Your task to perform on an android device: turn on data saver in the chrome app Image 0: 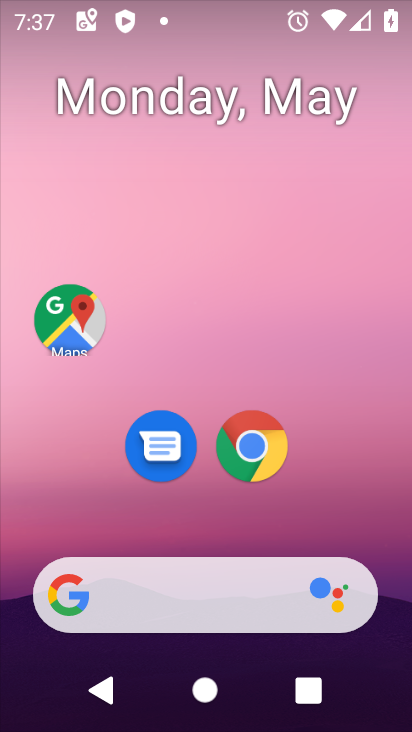
Step 0: click (259, 459)
Your task to perform on an android device: turn on data saver in the chrome app Image 1: 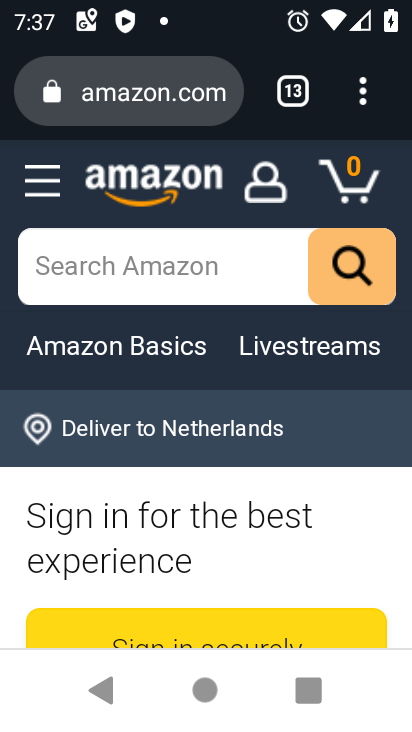
Step 1: click (365, 97)
Your task to perform on an android device: turn on data saver in the chrome app Image 2: 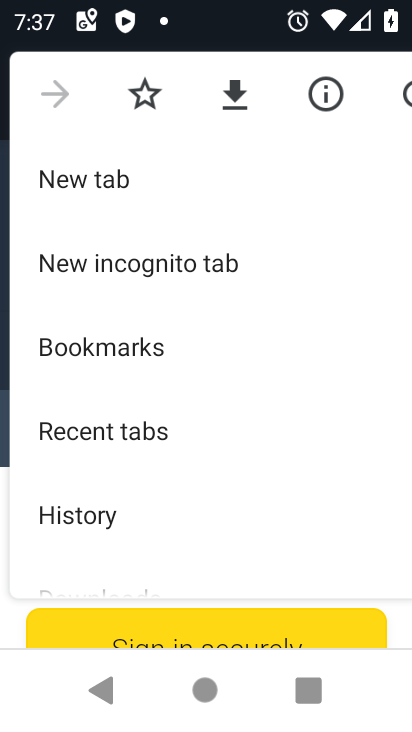
Step 2: drag from (205, 479) to (147, 148)
Your task to perform on an android device: turn on data saver in the chrome app Image 3: 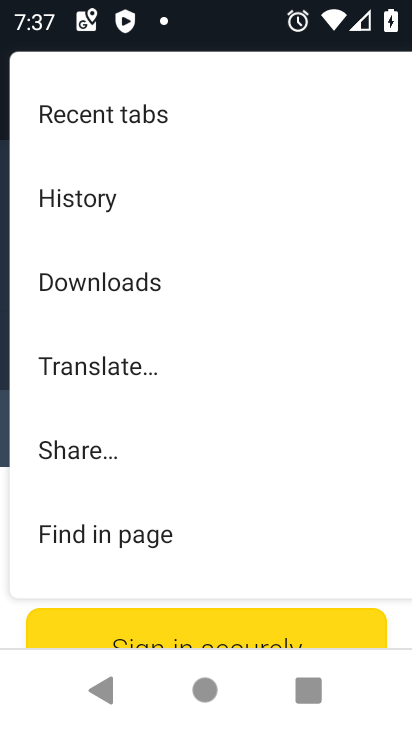
Step 3: drag from (200, 440) to (200, 93)
Your task to perform on an android device: turn on data saver in the chrome app Image 4: 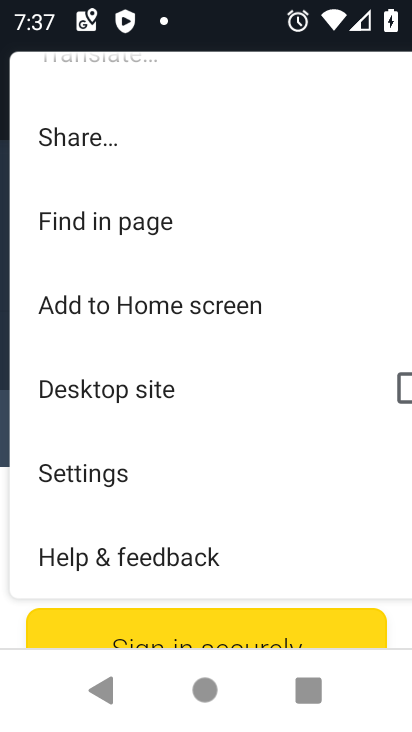
Step 4: click (109, 471)
Your task to perform on an android device: turn on data saver in the chrome app Image 5: 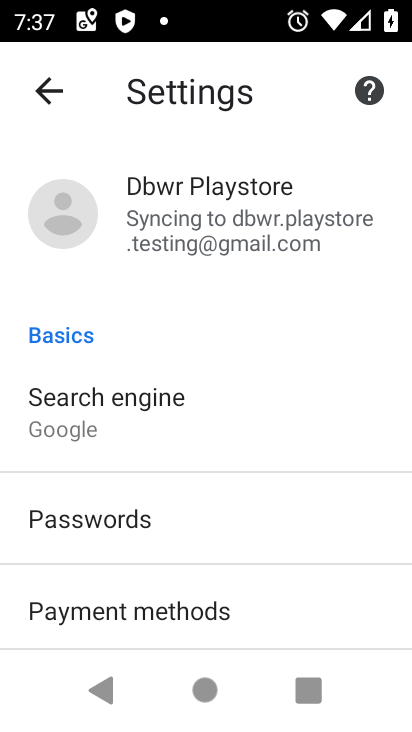
Step 5: drag from (248, 510) to (230, 263)
Your task to perform on an android device: turn on data saver in the chrome app Image 6: 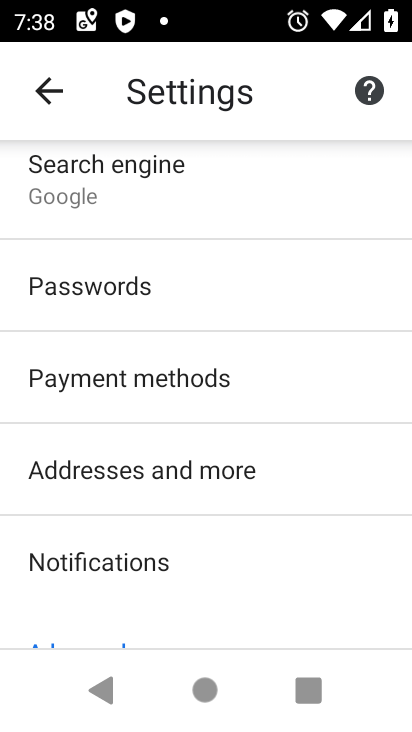
Step 6: drag from (254, 500) to (219, 199)
Your task to perform on an android device: turn on data saver in the chrome app Image 7: 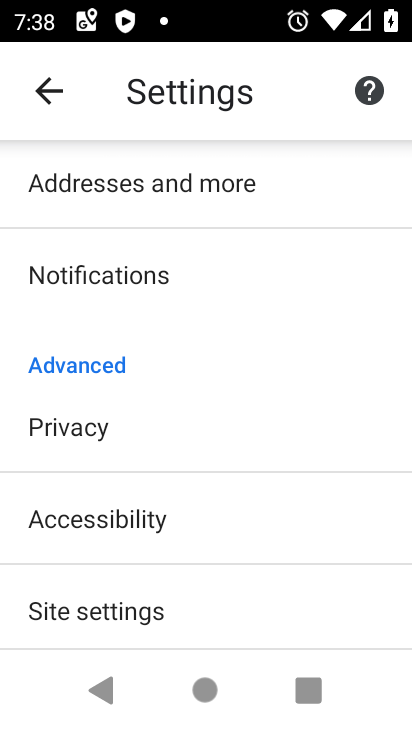
Step 7: drag from (204, 529) to (180, 164)
Your task to perform on an android device: turn on data saver in the chrome app Image 8: 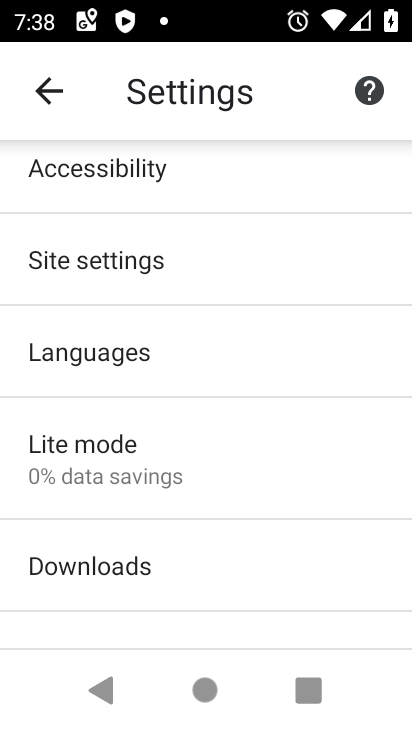
Step 8: click (104, 437)
Your task to perform on an android device: turn on data saver in the chrome app Image 9: 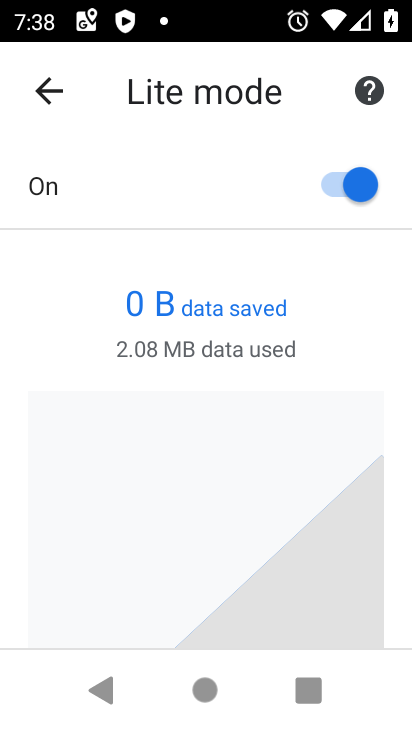
Step 9: task complete